Your task to perform on an android device: Open Chrome and go to the settings page Image 0: 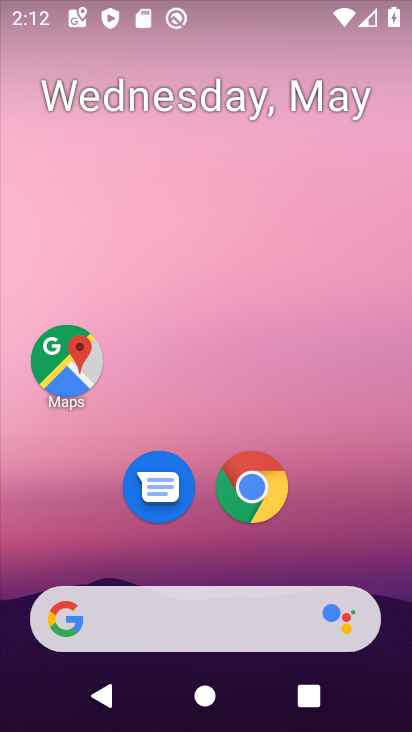
Step 0: drag from (382, 538) to (316, 76)
Your task to perform on an android device: Open Chrome and go to the settings page Image 1: 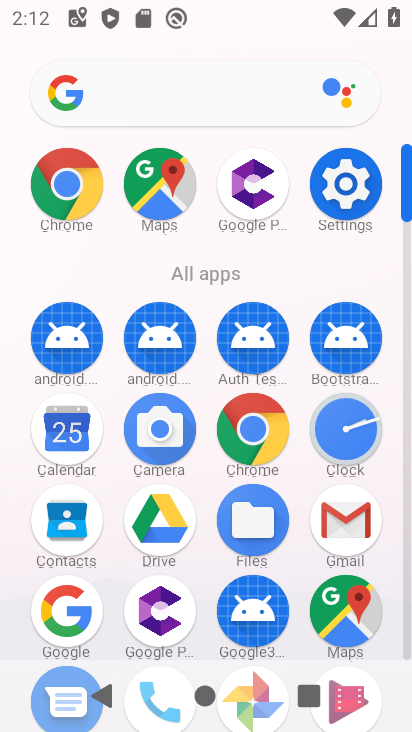
Step 1: click (276, 430)
Your task to perform on an android device: Open Chrome and go to the settings page Image 2: 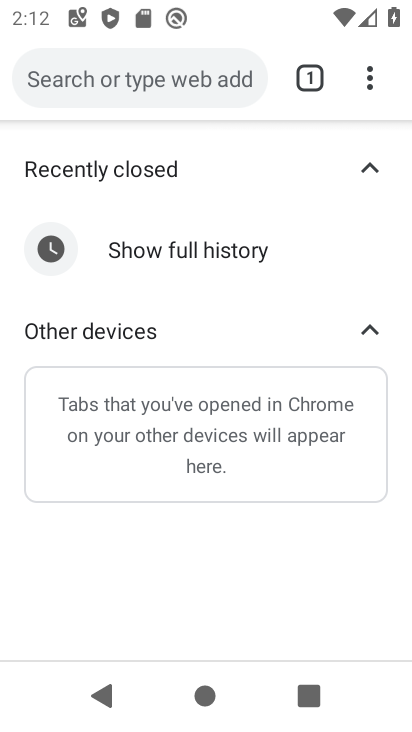
Step 2: task complete